Your task to perform on an android device: open sync settings in chrome Image 0: 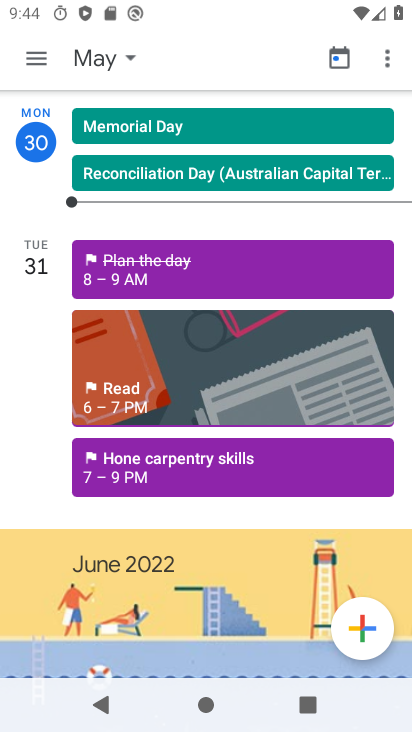
Step 0: press home button
Your task to perform on an android device: open sync settings in chrome Image 1: 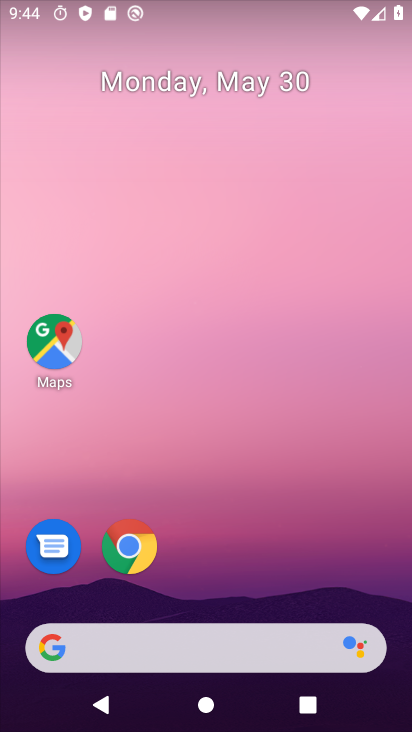
Step 1: click (128, 563)
Your task to perform on an android device: open sync settings in chrome Image 2: 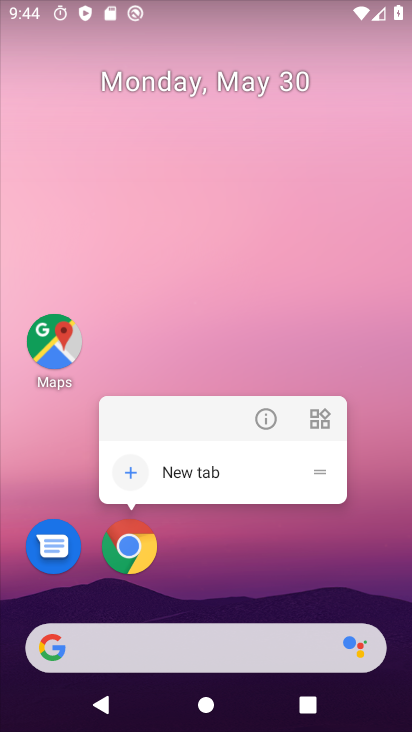
Step 2: click (127, 554)
Your task to perform on an android device: open sync settings in chrome Image 3: 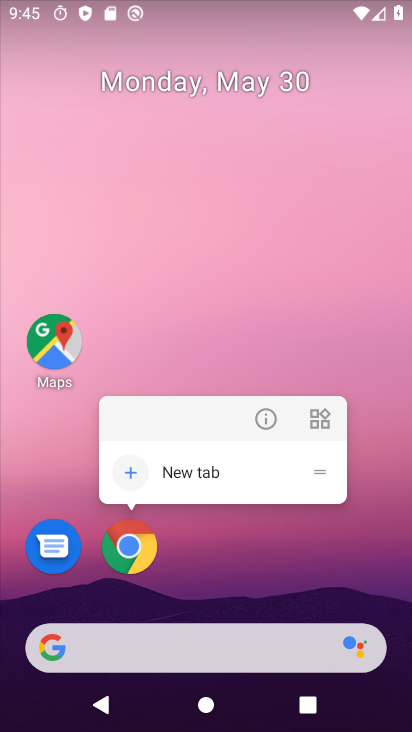
Step 3: click (126, 552)
Your task to perform on an android device: open sync settings in chrome Image 4: 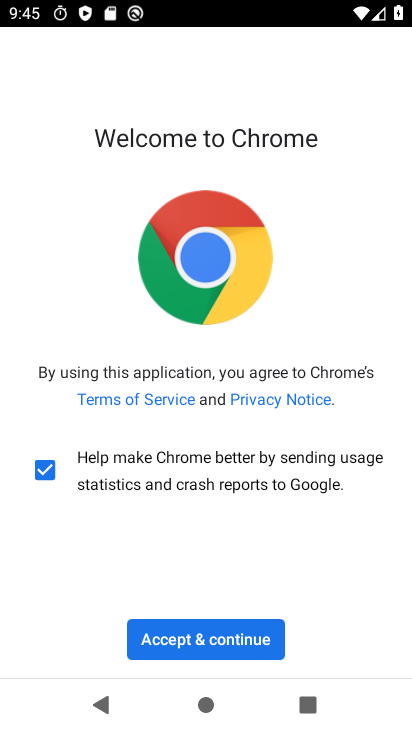
Step 4: click (229, 643)
Your task to perform on an android device: open sync settings in chrome Image 5: 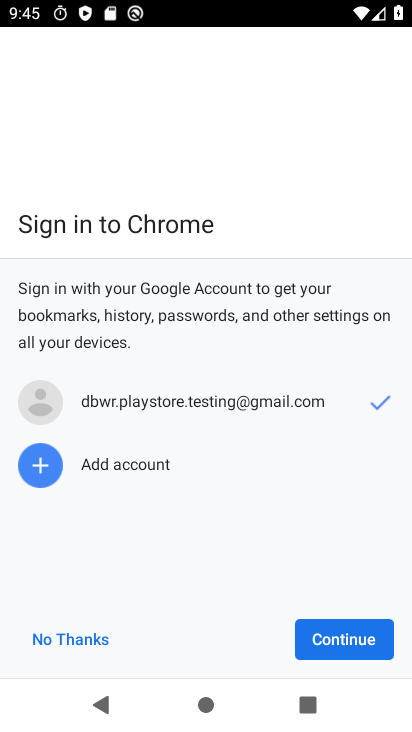
Step 5: click (367, 649)
Your task to perform on an android device: open sync settings in chrome Image 6: 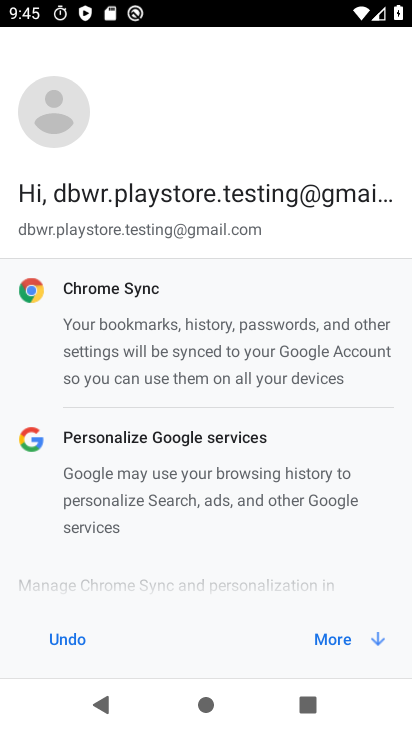
Step 6: click (359, 641)
Your task to perform on an android device: open sync settings in chrome Image 7: 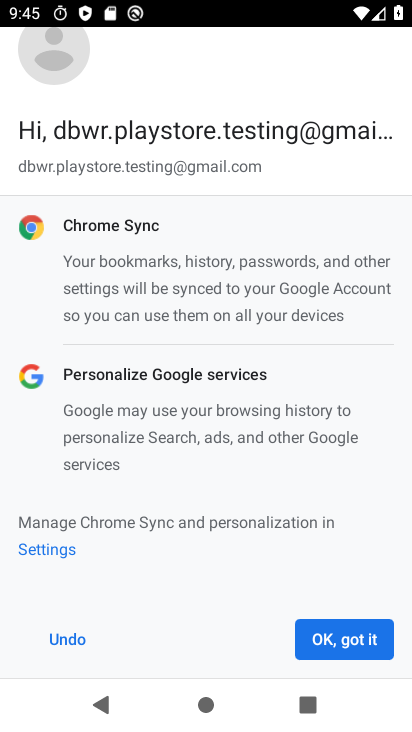
Step 7: click (354, 640)
Your task to perform on an android device: open sync settings in chrome Image 8: 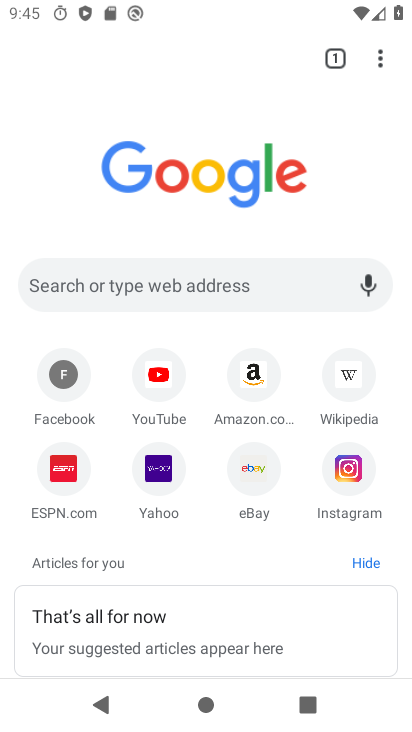
Step 8: drag from (387, 69) to (252, 492)
Your task to perform on an android device: open sync settings in chrome Image 9: 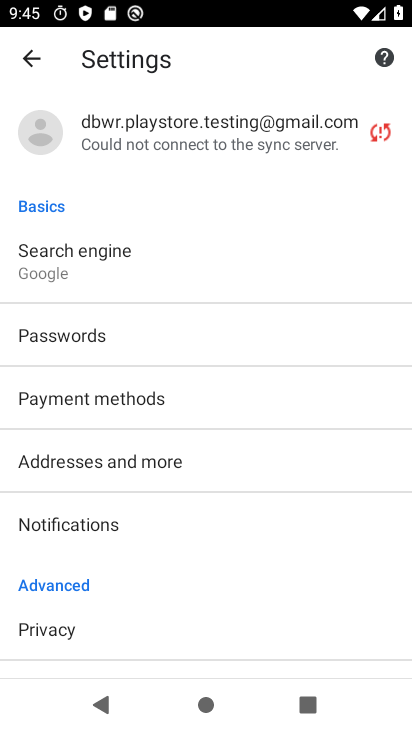
Step 9: click (281, 132)
Your task to perform on an android device: open sync settings in chrome Image 10: 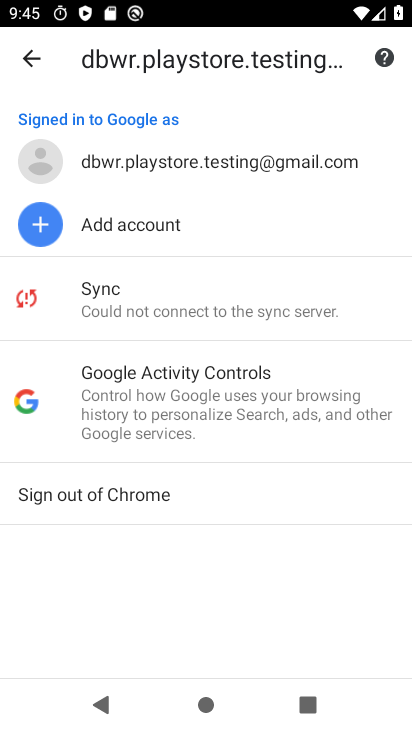
Step 10: click (175, 299)
Your task to perform on an android device: open sync settings in chrome Image 11: 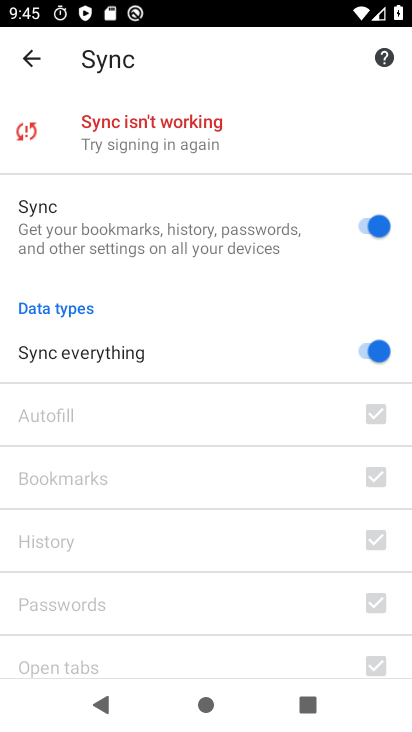
Step 11: task complete